Your task to perform on an android device: Search for a new eyeshadow Image 0: 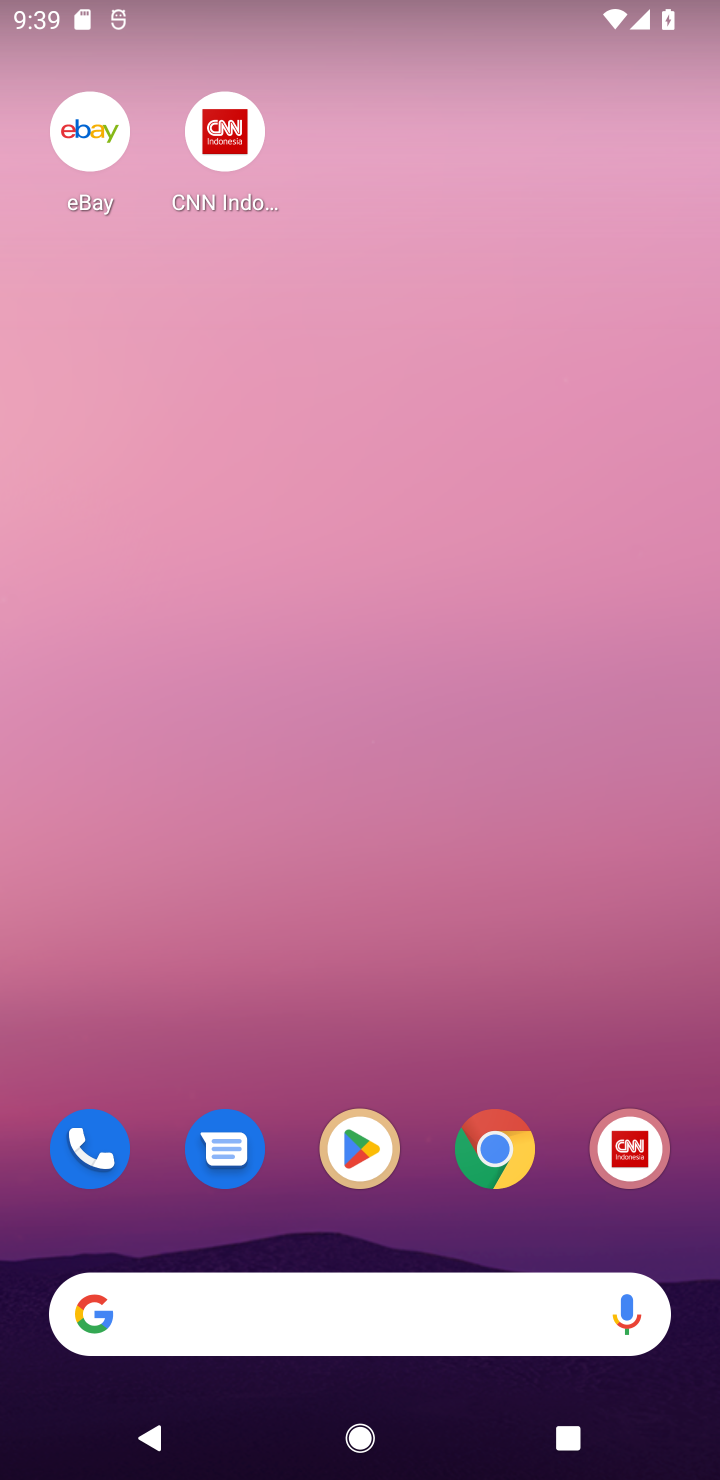
Step 0: click (315, 1317)
Your task to perform on an android device: Search for a new eyeshadow Image 1: 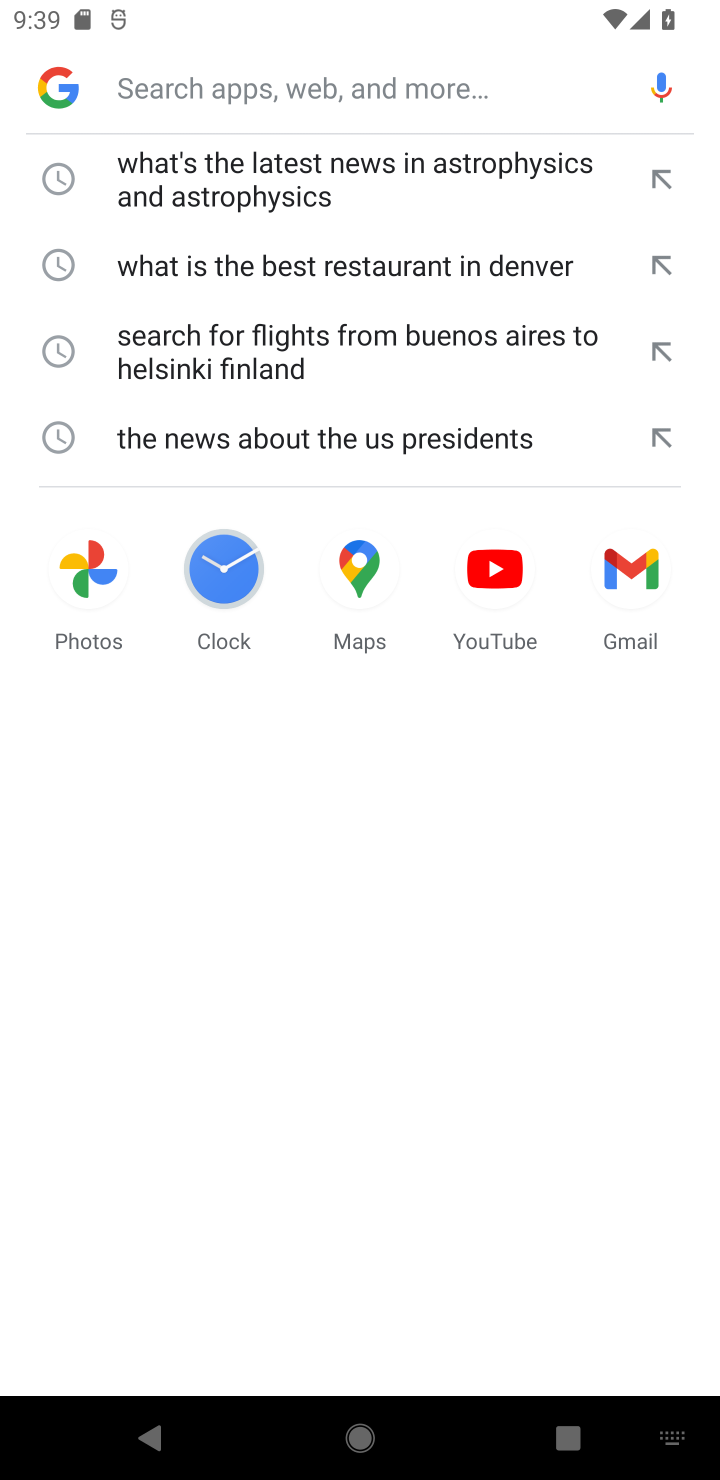
Step 1: type "Search for a new eyeshadow"
Your task to perform on an android device: Search for a new eyeshadow Image 2: 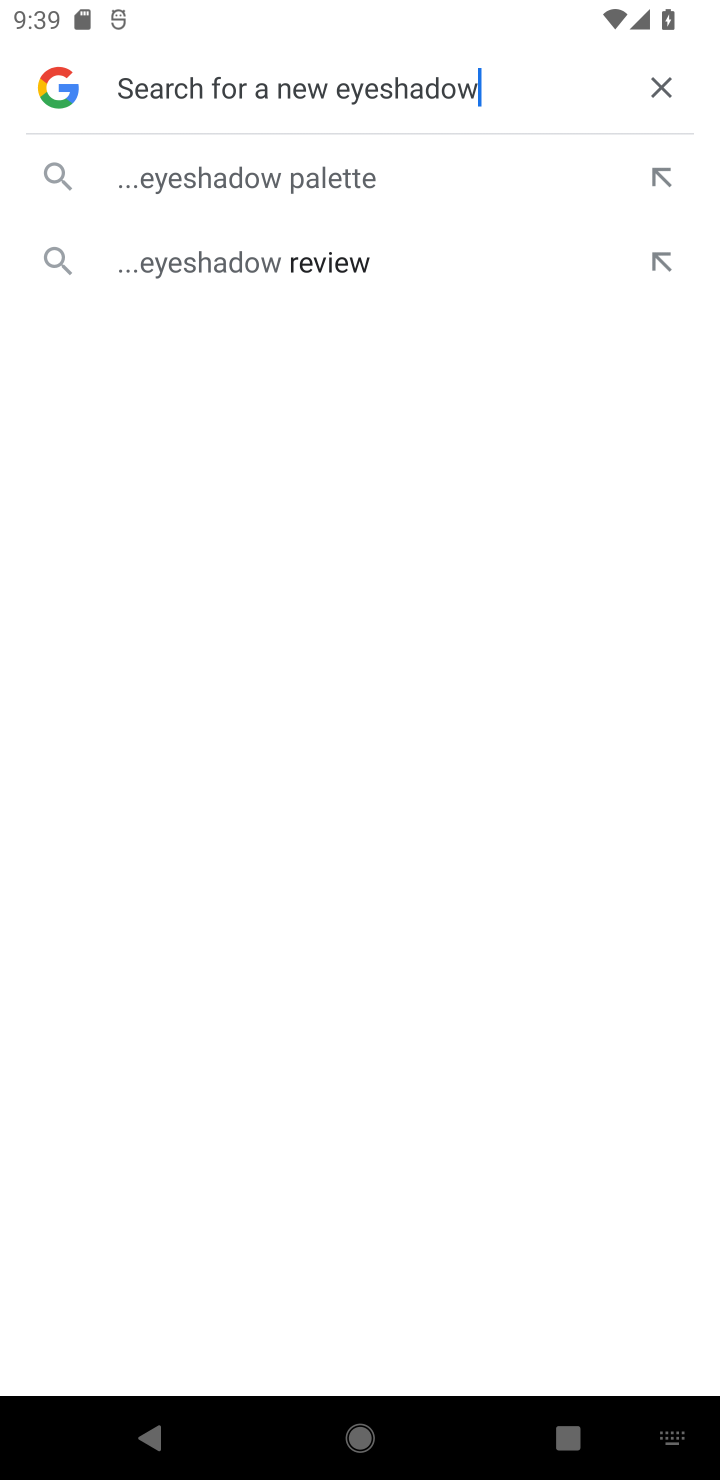
Step 2: click (274, 177)
Your task to perform on an android device: Search for a new eyeshadow Image 3: 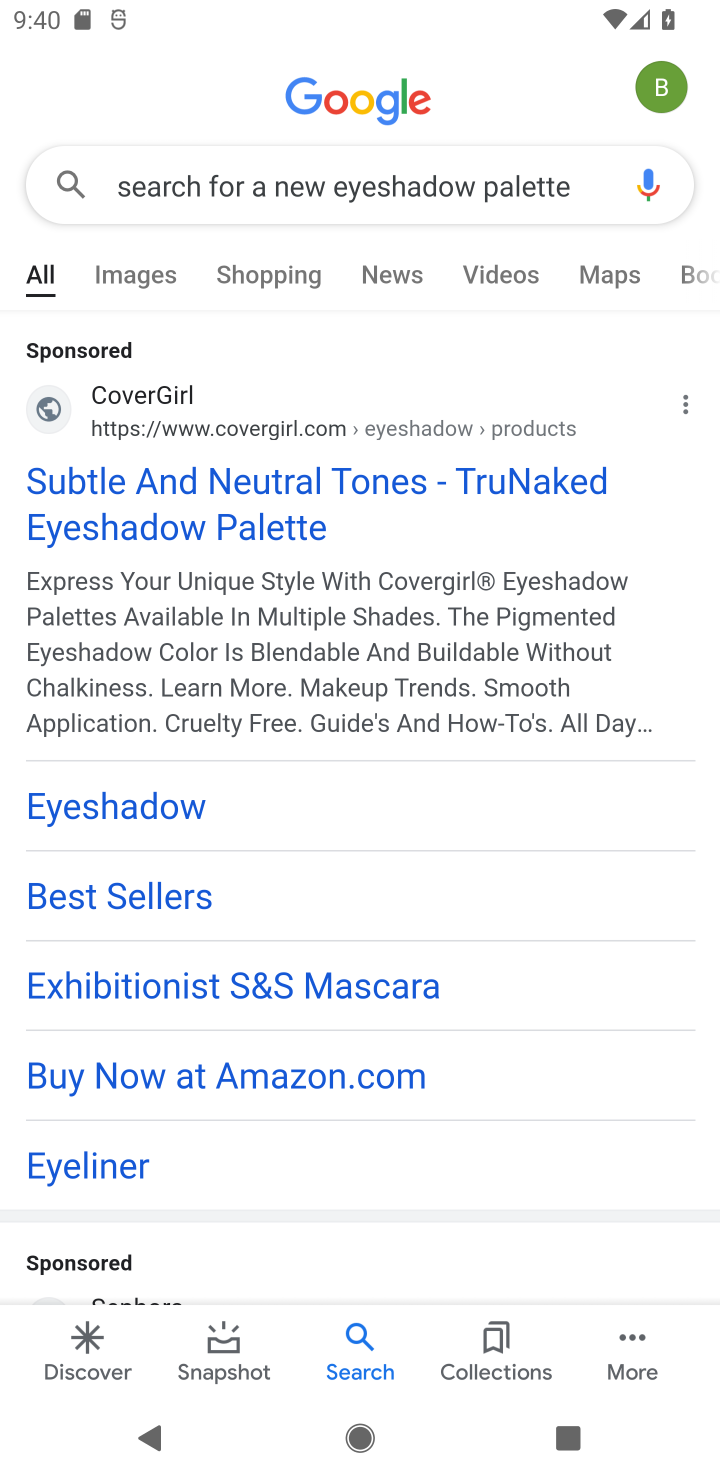
Step 3: task complete